Your task to perform on an android device: Open the map Image 0: 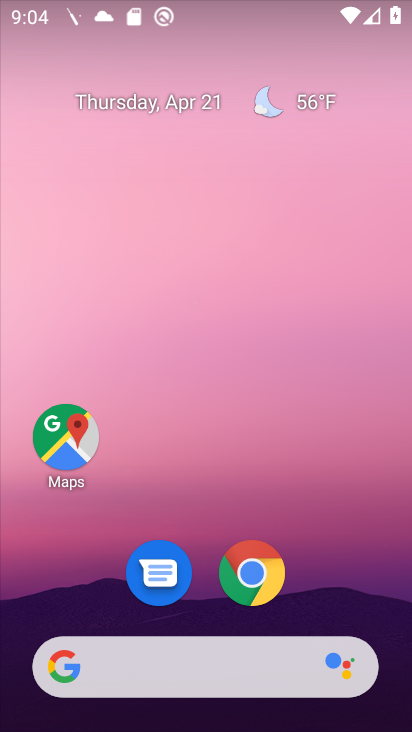
Step 0: drag from (261, 467) to (327, 146)
Your task to perform on an android device: Open the map Image 1: 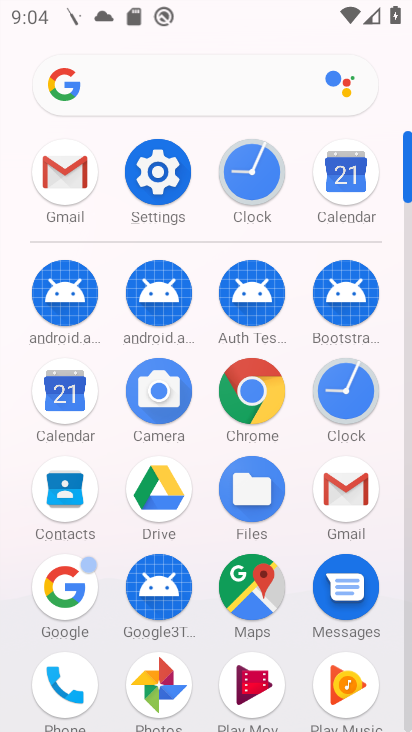
Step 1: click (261, 611)
Your task to perform on an android device: Open the map Image 2: 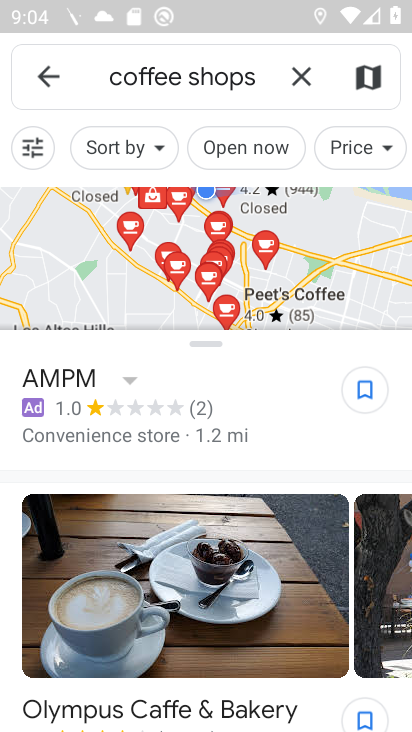
Step 2: task complete